Your task to perform on an android device: When is my next appointment? Image 0: 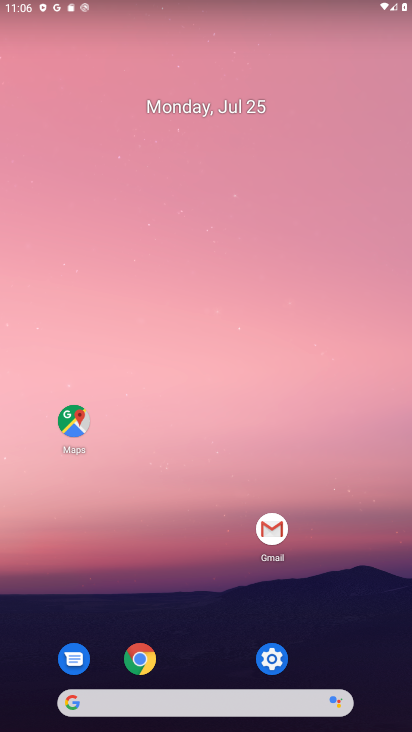
Step 0: drag from (235, 724) to (389, 155)
Your task to perform on an android device: When is my next appointment? Image 1: 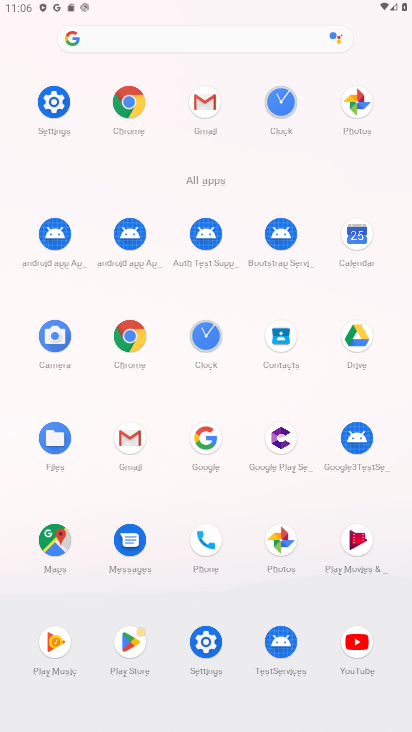
Step 1: click (355, 241)
Your task to perform on an android device: When is my next appointment? Image 2: 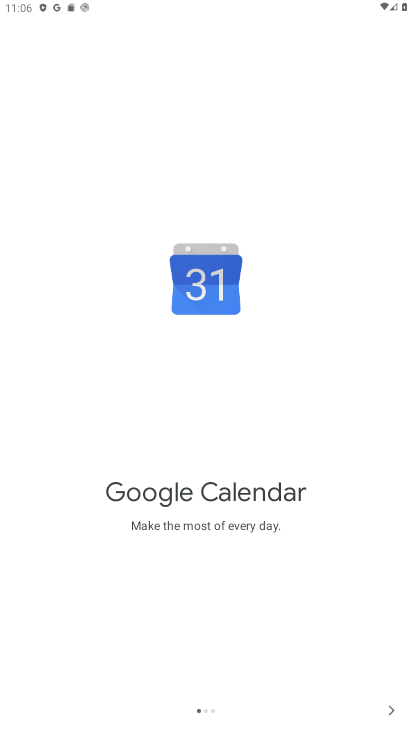
Step 2: click (385, 717)
Your task to perform on an android device: When is my next appointment? Image 3: 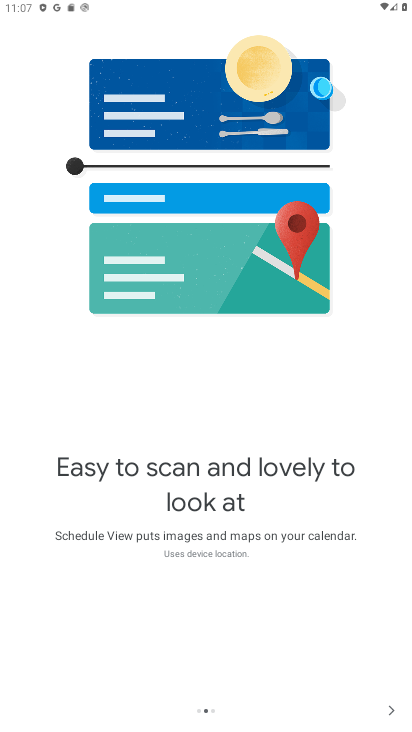
Step 3: click (385, 717)
Your task to perform on an android device: When is my next appointment? Image 4: 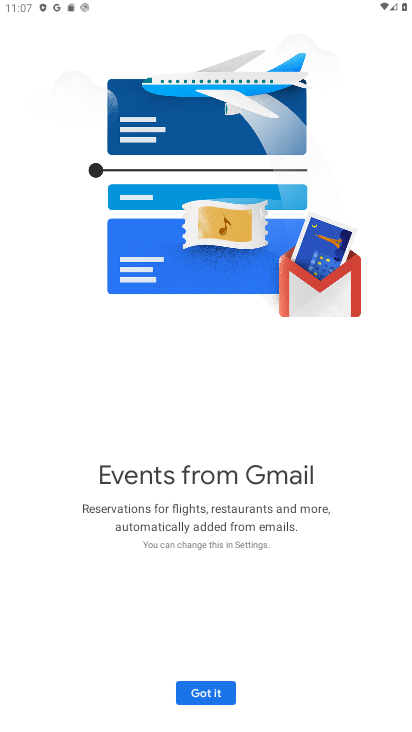
Step 4: click (191, 688)
Your task to perform on an android device: When is my next appointment? Image 5: 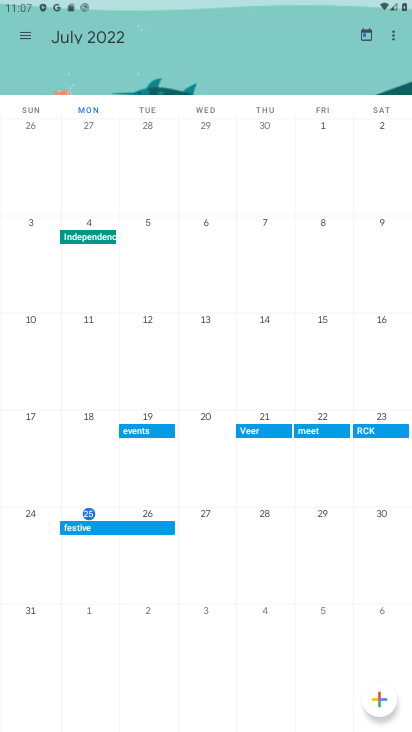
Step 5: click (83, 522)
Your task to perform on an android device: When is my next appointment? Image 6: 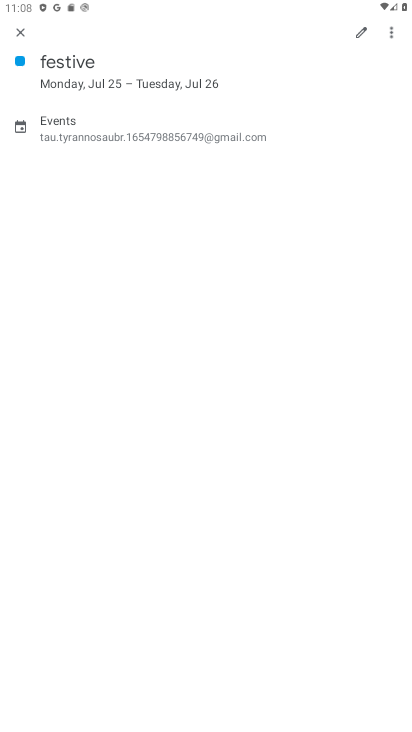
Step 6: task complete